Your task to perform on an android device: turn off data saver in the chrome app Image 0: 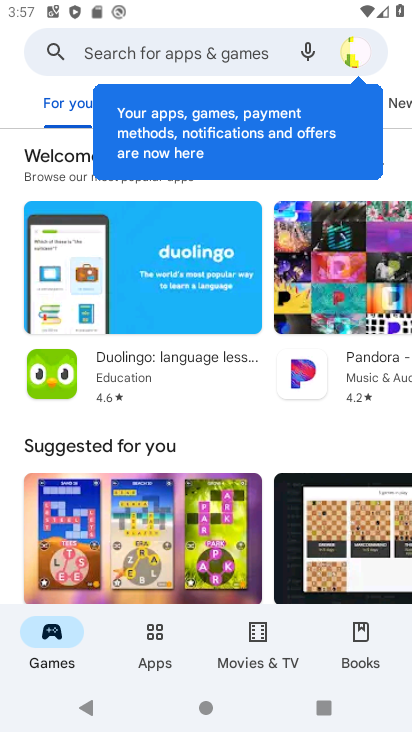
Step 0: press home button
Your task to perform on an android device: turn off data saver in the chrome app Image 1: 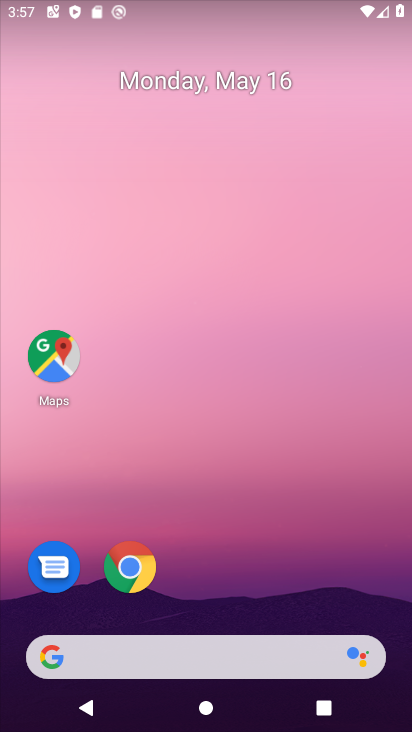
Step 1: drag from (348, 638) to (350, 3)
Your task to perform on an android device: turn off data saver in the chrome app Image 2: 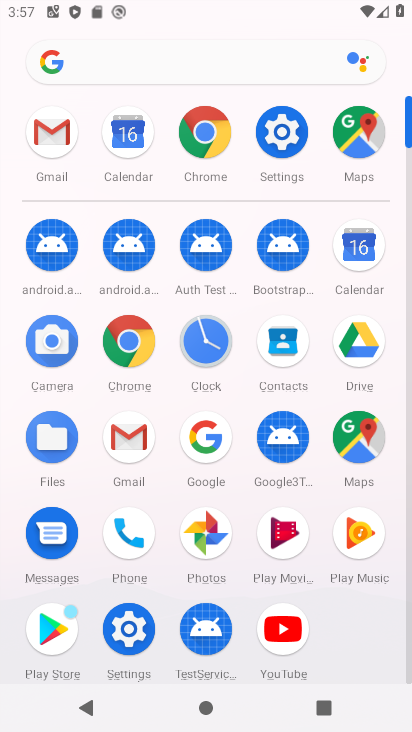
Step 2: click (132, 343)
Your task to perform on an android device: turn off data saver in the chrome app Image 3: 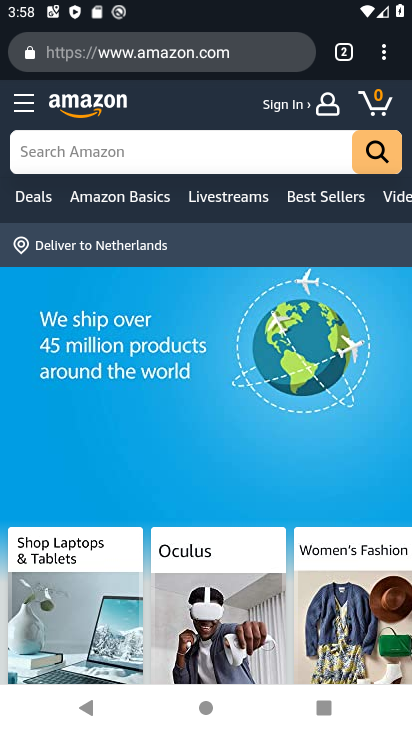
Step 3: click (387, 55)
Your task to perform on an android device: turn off data saver in the chrome app Image 4: 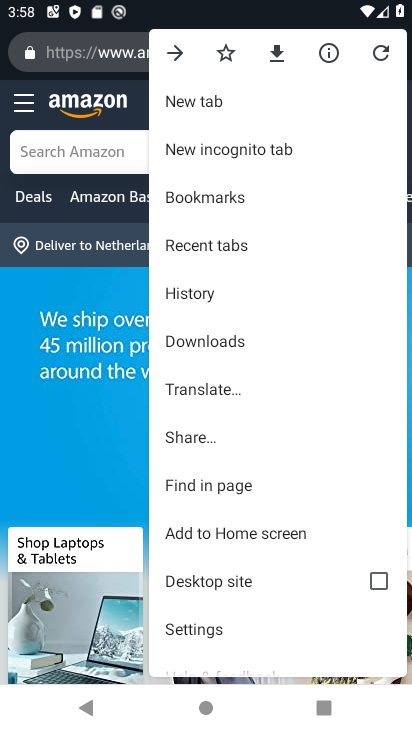
Step 4: click (219, 633)
Your task to perform on an android device: turn off data saver in the chrome app Image 5: 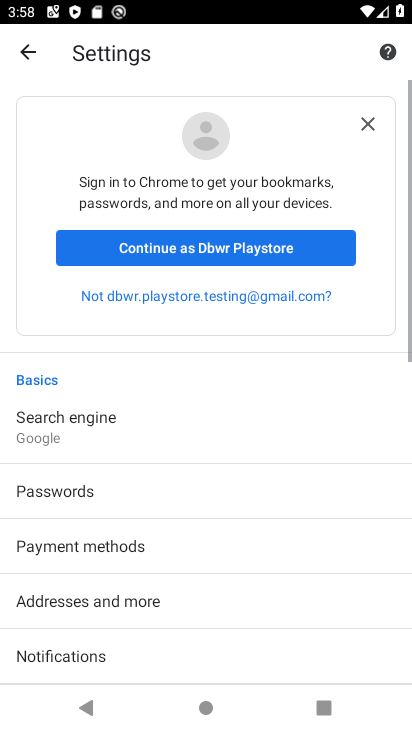
Step 5: drag from (236, 530) to (216, 58)
Your task to perform on an android device: turn off data saver in the chrome app Image 6: 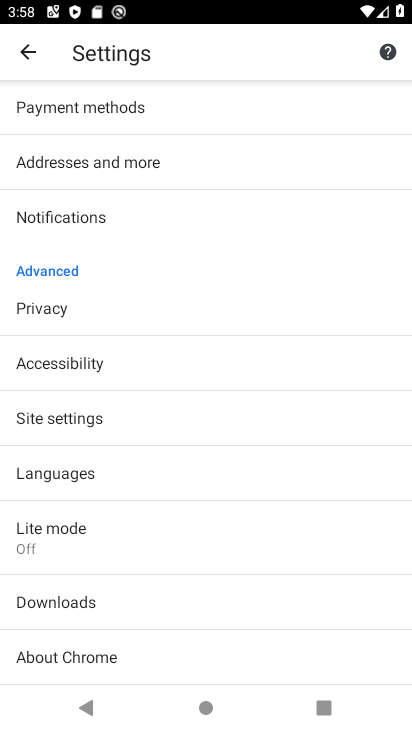
Step 6: click (79, 529)
Your task to perform on an android device: turn off data saver in the chrome app Image 7: 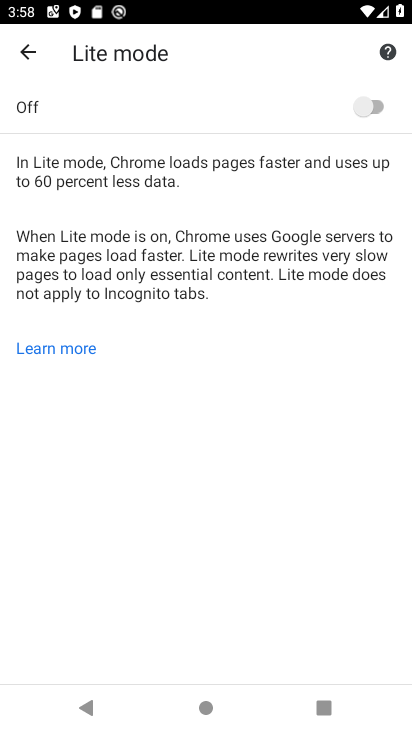
Step 7: task complete